Your task to perform on an android device: choose inbox layout in the gmail app Image 0: 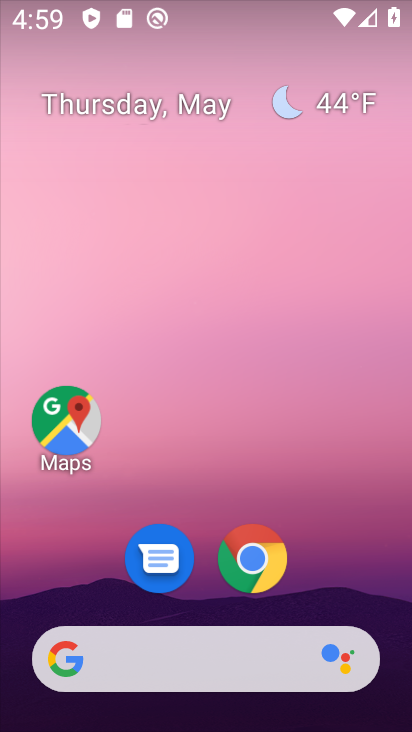
Step 0: drag from (332, 555) to (287, 21)
Your task to perform on an android device: choose inbox layout in the gmail app Image 1: 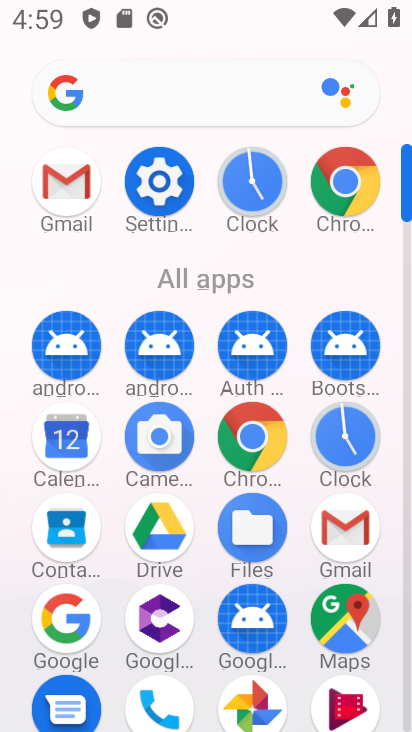
Step 1: drag from (0, 561) to (15, 198)
Your task to perform on an android device: choose inbox layout in the gmail app Image 2: 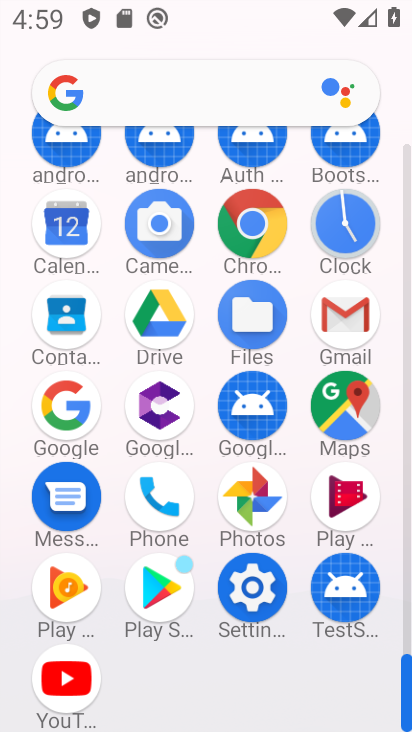
Step 2: click (345, 307)
Your task to perform on an android device: choose inbox layout in the gmail app Image 3: 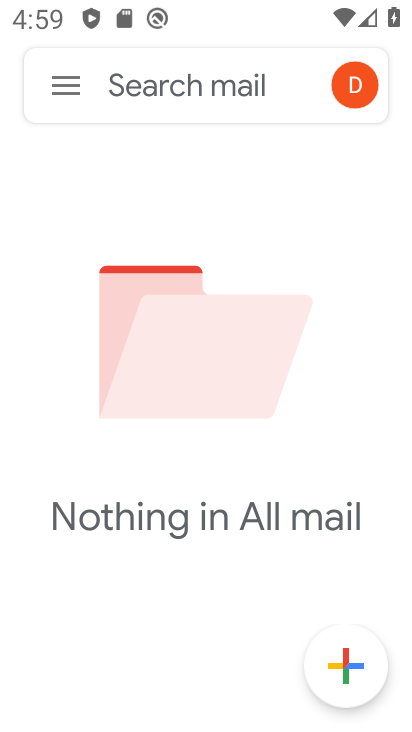
Step 3: click (66, 70)
Your task to perform on an android device: choose inbox layout in the gmail app Image 4: 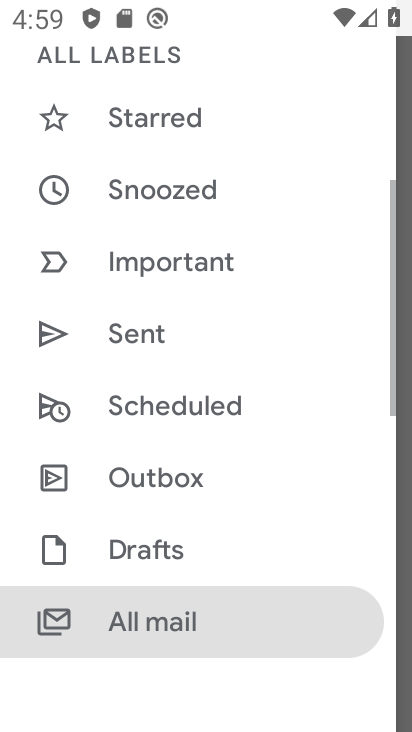
Step 4: drag from (193, 180) to (259, 606)
Your task to perform on an android device: choose inbox layout in the gmail app Image 5: 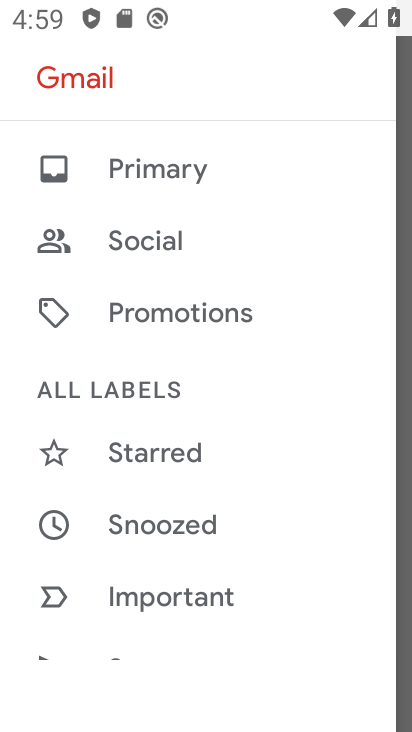
Step 5: drag from (266, 451) to (239, 129)
Your task to perform on an android device: choose inbox layout in the gmail app Image 6: 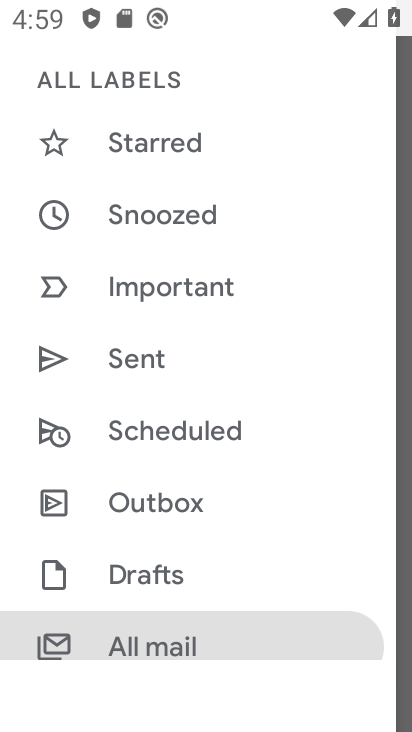
Step 6: drag from (249, 511) to (253, 130)
Your task to perform on an android device: choose inbox layout in the gmail app Image 7: 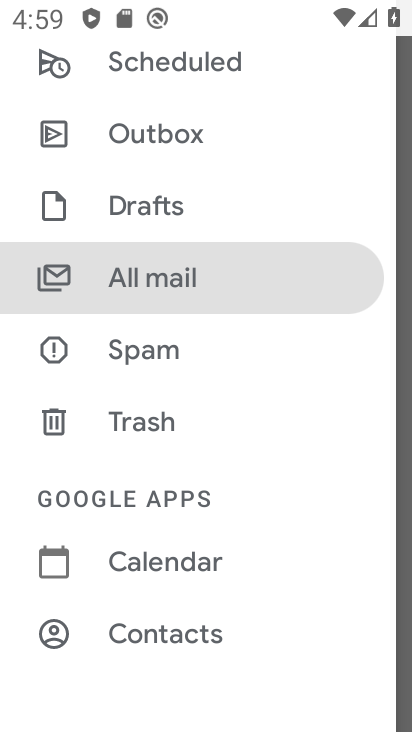
Step 7: drag from (246, 571) to (245, 140)
Your task to perform on an android device: choose inbox layout in the gmail app Image 8: 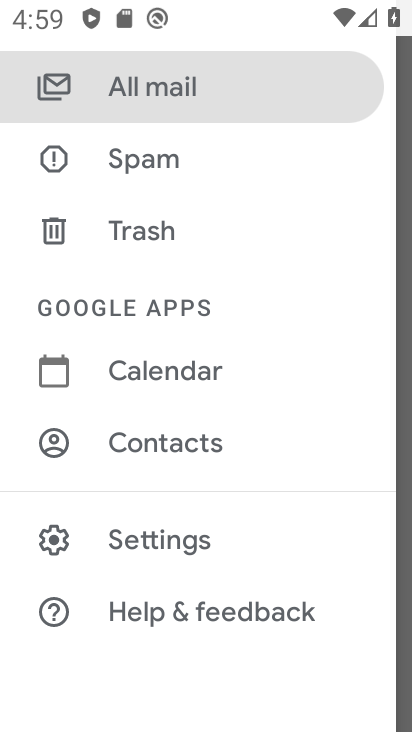
Step 8: click (176, 530)
Your task to perform on an android device: choose inbox layout in the gmail app Image 9: 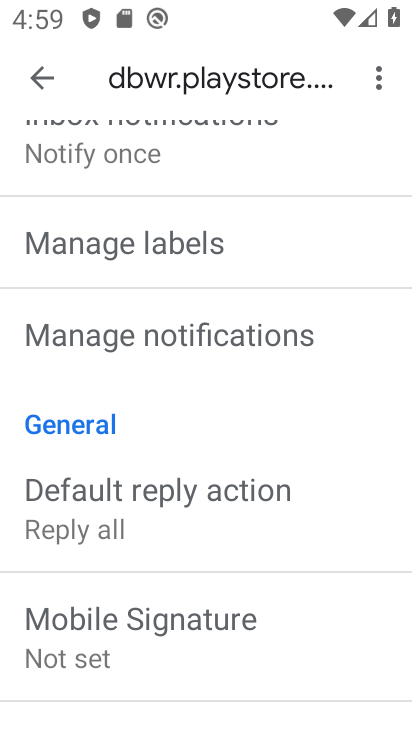
Step 9: drag from (217, 236) to (289, 653)
Your task to perform on an android device: choose inbox layout in the gmail app Image 10: 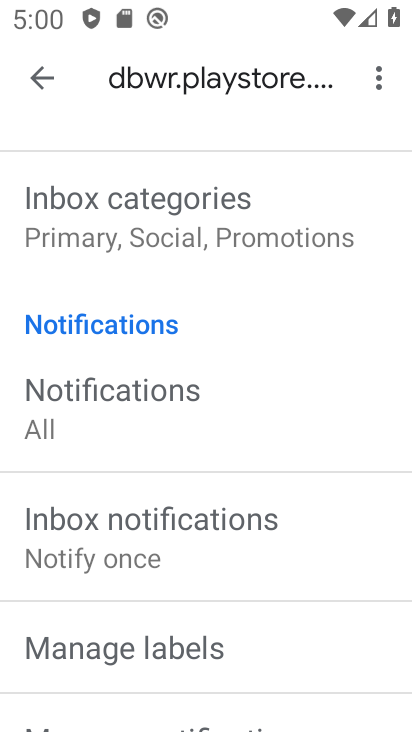
Step 10: drag from (198, 289) to (273, 617)
Your task to perform on an android device: choose inbox layout in the gmail app Image 11: 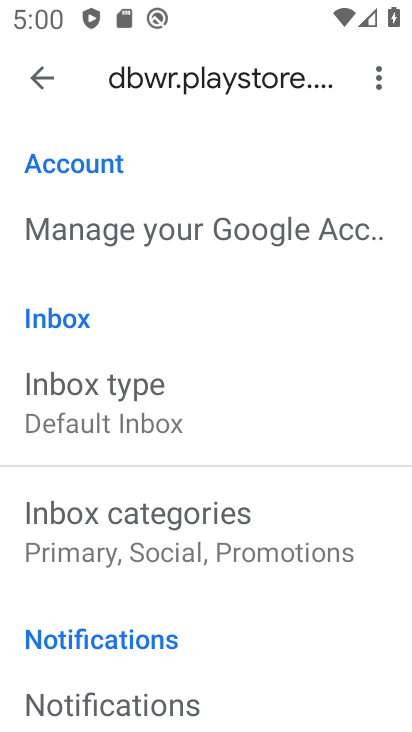
Step 11: click (178, 405)
Your task to perform on an android device: choose inbox layout in the gmail app Image 12: 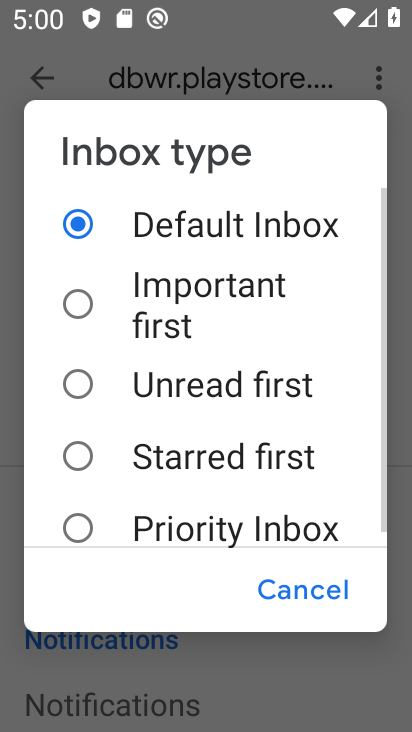
Step 12: click (175, 316)
Your task to perform on an android device: choose inbox layout in the gmail app Image 13: 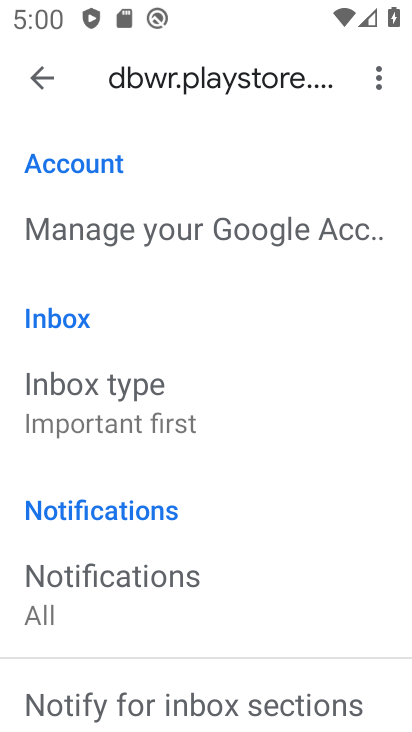
Step 13: task complete